Your task to perform on an android device: Open location settings Image 0: 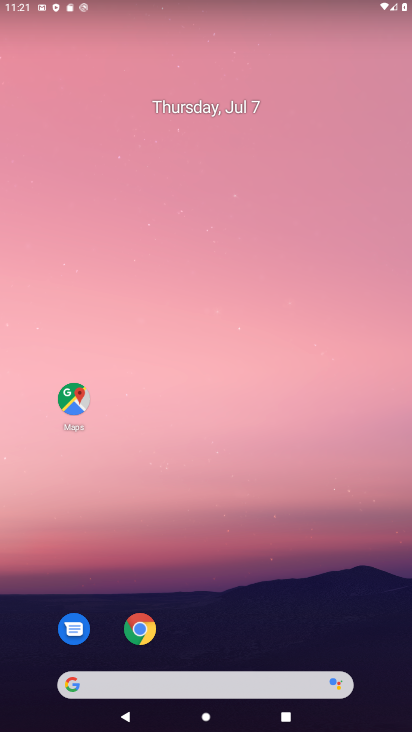
Step 0: click (321, 185)
Your task to perform on an android device: Open location settings Image 1: 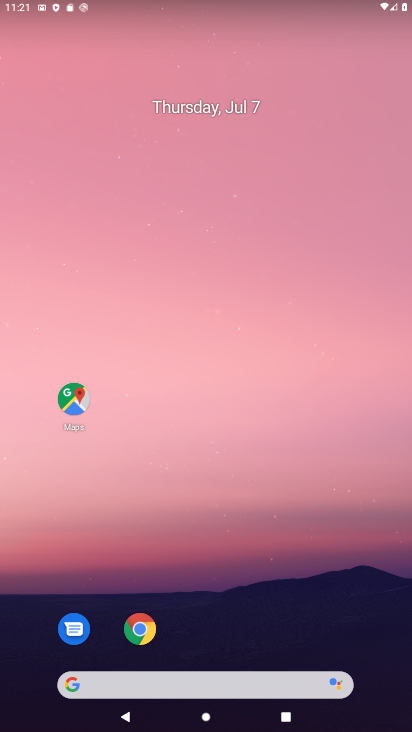
Step 1: drag from (367, 663) to (326, 102)
Your task to perform on an android device: Open location settings Image 2: 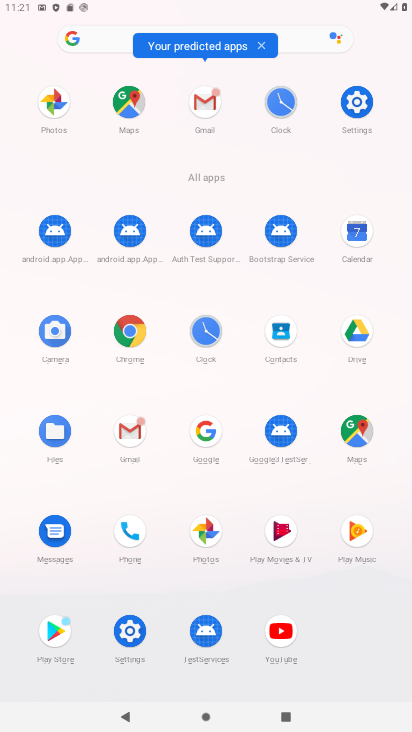
Step 2: click (128, 631)
Your task to perform on an android device: Open location settings Image 3: 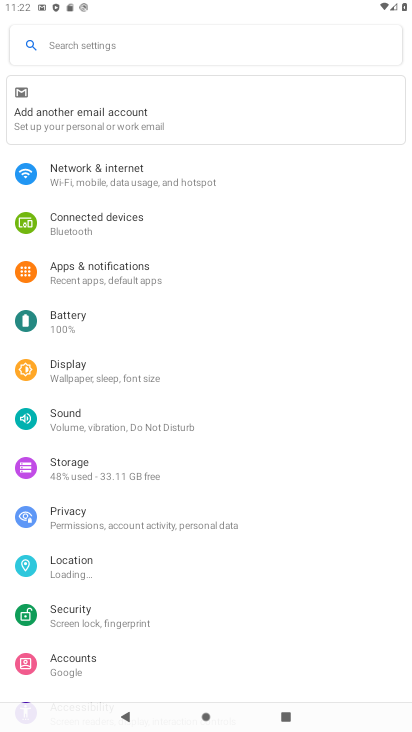
Step 3: click (73, 569)
Your task to perform on an android device: Open location settings Image 4: 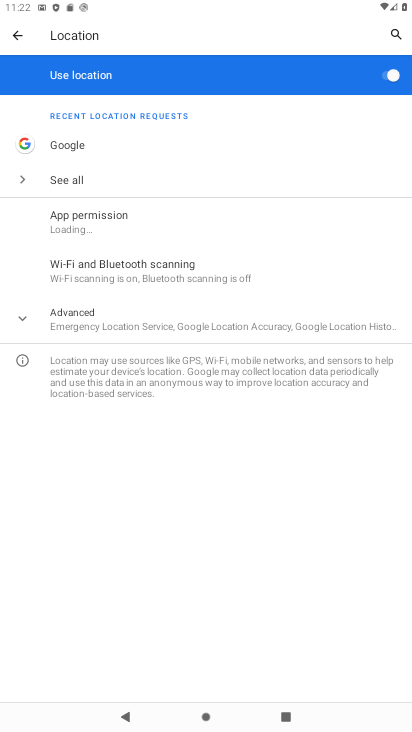
Step 4: click (17, 316)
Your task to perform on an android device: Open location settings Image 5: 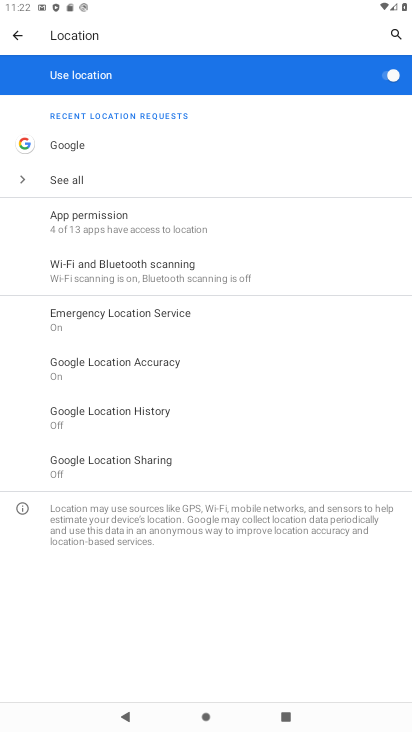
Step 5: task complete